Your task to perform on an android device: toggle notification dots Image 0: 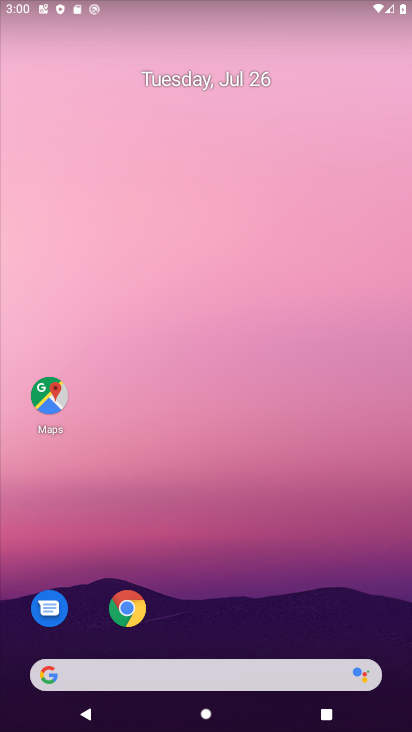
Step 0: drag from (246, 627) to (264, 128)
Your task to perform on an android device: toggle notification dots Image 1: 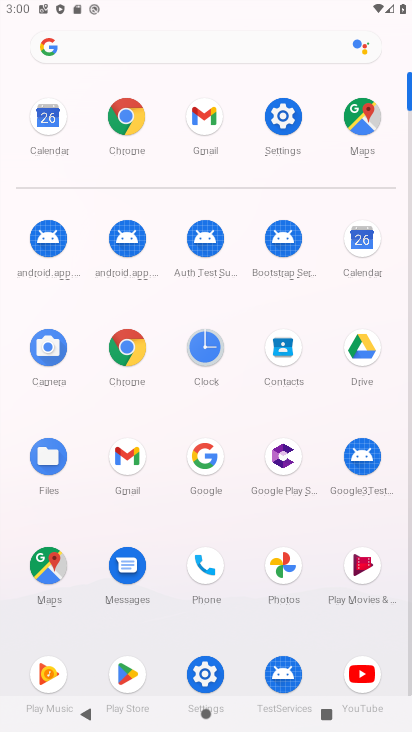
Step 1: click (257, 122)
Your task to perform on an android device: toggle notification dots Image 2: 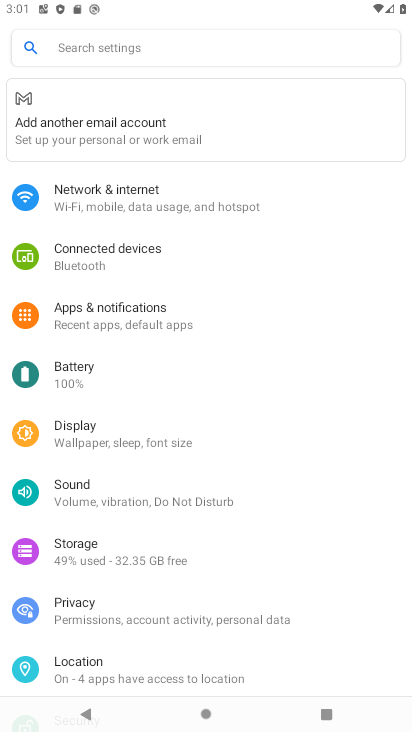
Step 2: click (139, 317)
Your task to perform on an android device: toggle notification dots Image 3: 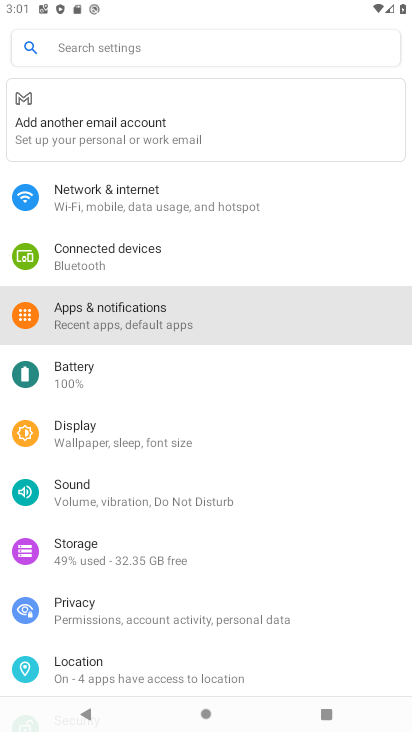
Step 3: task complete